Your task to perform on an android device: stop showing notifications on the lock screen Image 0: 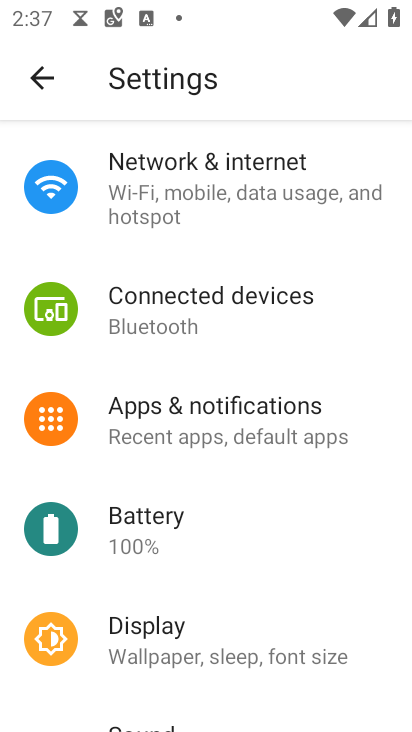
Step 0: press home button
Your task to perform on an android device: stop showing notifications on the lock screen Image 1: 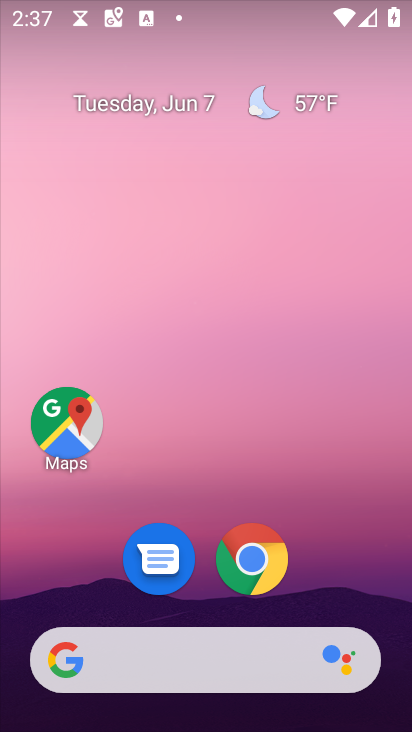
Step 1: drag from (29, 504) to (209, 153)
Your task to perform on an android device: stop showing notifications on the lock screen Image 2: 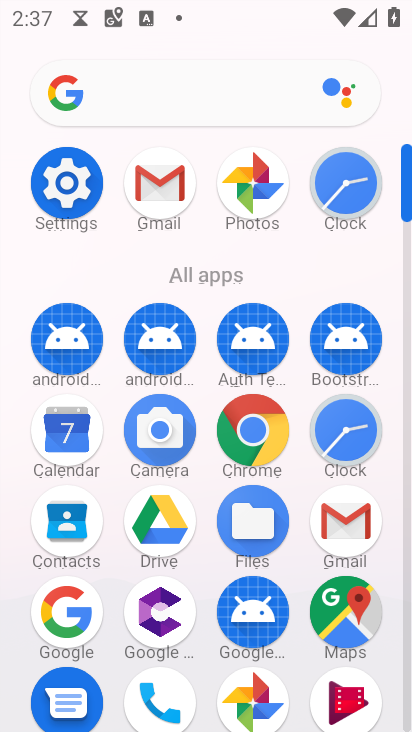
Step 2: click (63, 182)
Your task to perform on an android device: stop showing notifications on the lock screen Image 3: 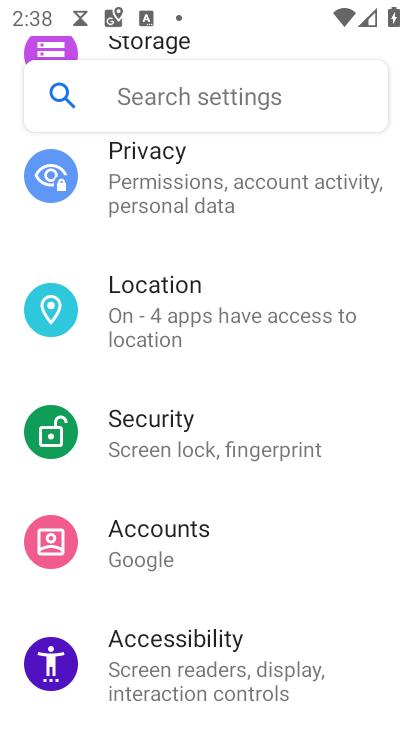
Step 3: drag from (213, 239) to (164, 621)
Your task to perform on an android device: stop showing notifications on the lock screen Image 4: 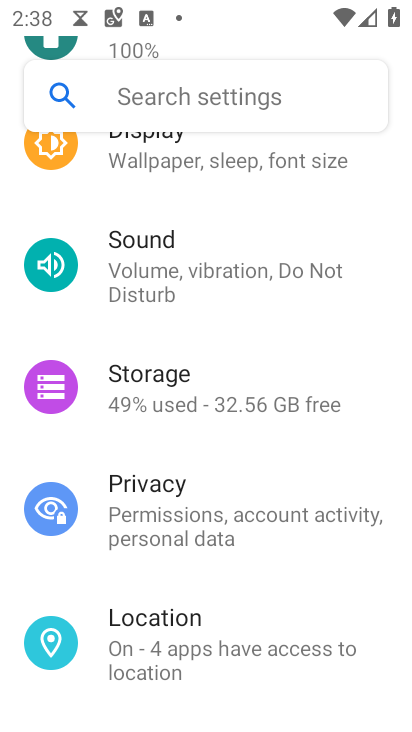
Step 4: drag from (230, 199) to (123, 603)
Your task to perform on an android device: stop showing notifications on the lock screen Image 5: 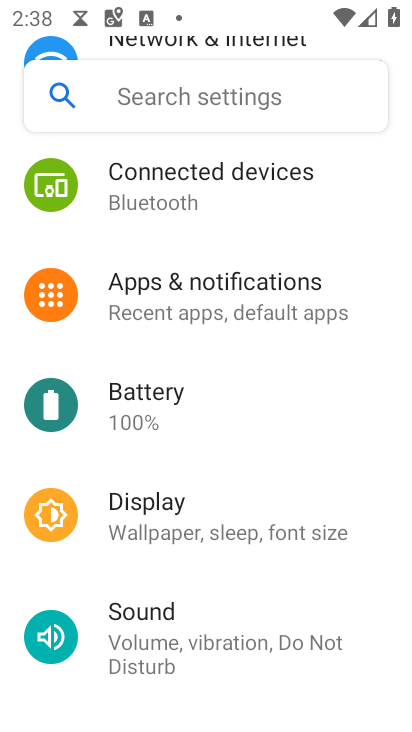
Step 5: drag from (153, 182) to (186, 587)
Your task to perform on an android device: stop showing notifications on the lock screen Image 6: 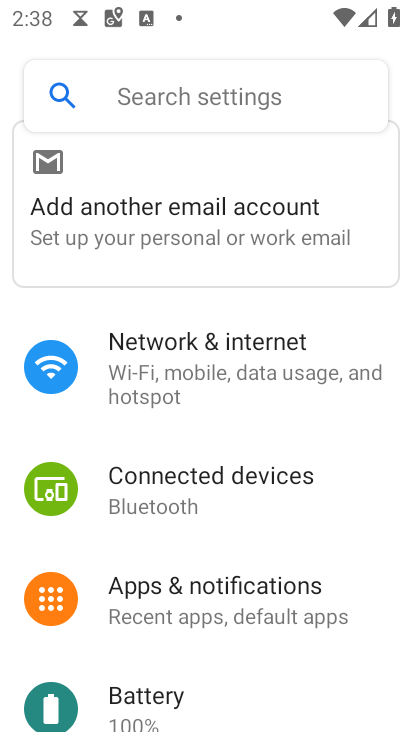
Step 6: click (143, 594)
Your task to perform on an android device: stop showing notifications on the lock screen Image 7: 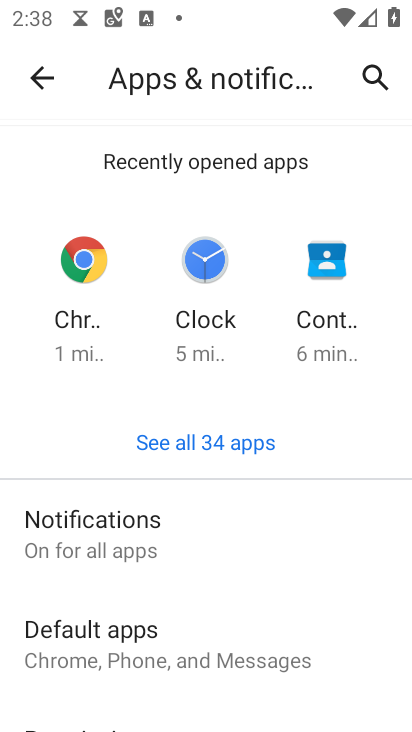
Step 7: click (31, 560)
Your task to perform on an android device: stop showing notifications on the lock screen Image 8: 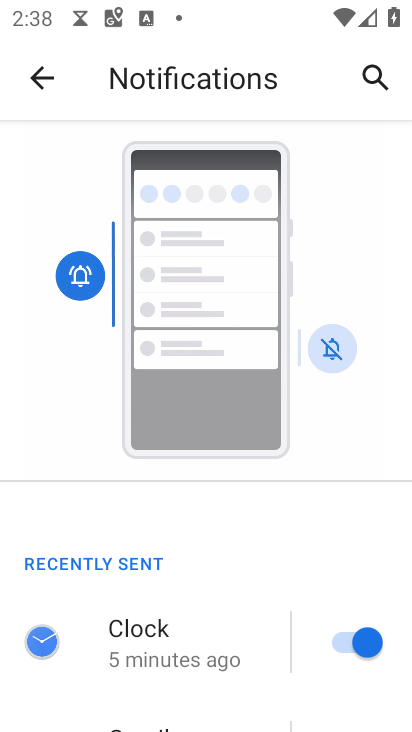
Step 8: click (61, 197)
Your task to perform on an android device: stop showing notifications on the lock screen Image 9: 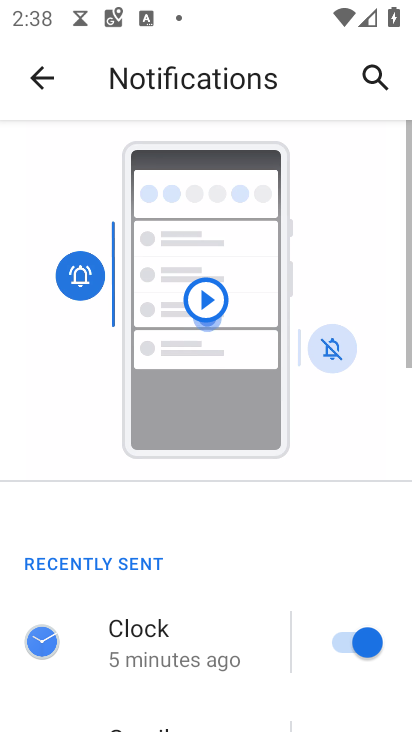
Step 9: drag from (9, 571) to (167, 176)
Your task to perform on an android device: stop showing notifications on the lock screen Image 10: 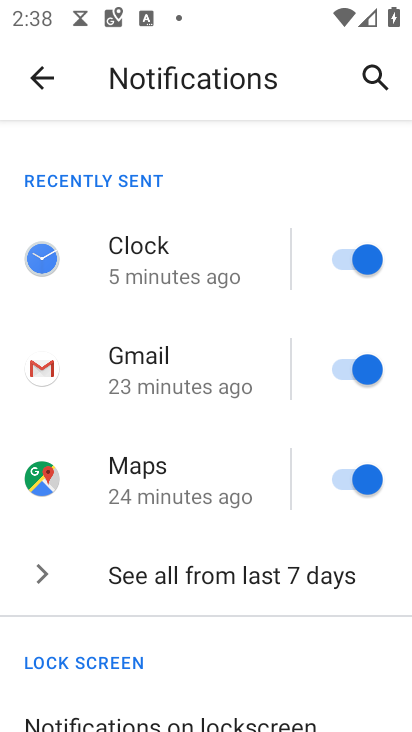
Step 10: drag from (11, 400) to (115, 170)
Your task to perform on an android device: stop showing notifications on the lock screen Image 11: 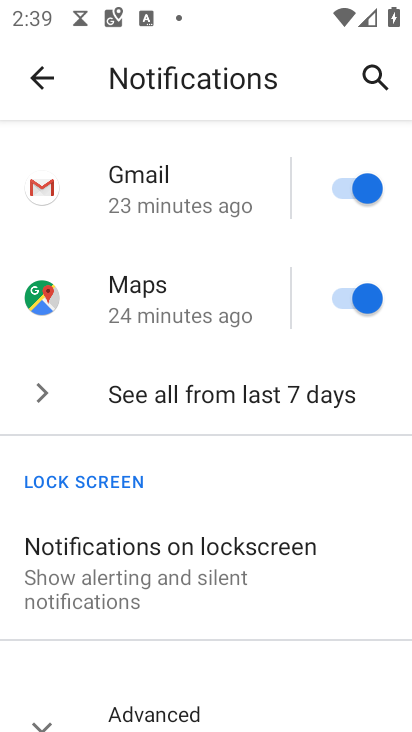
Step 11: click (144, 557)
Your task to perform on an android device: stop showing notifications on the lock screen Image 12: 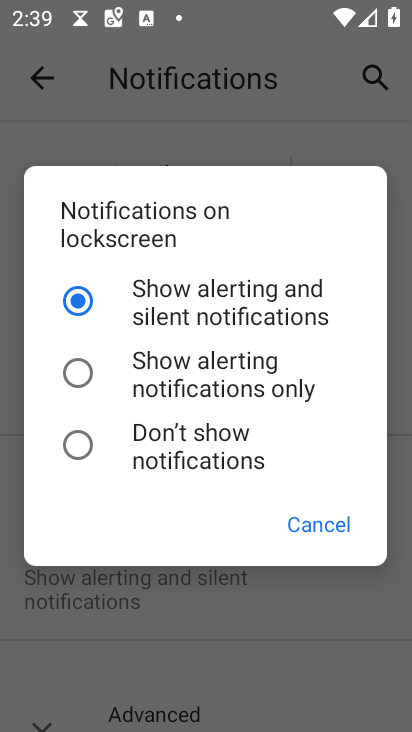
Step 12: click (68, 449)
Your task to perform on an android device: stop showing notifications on the lock screen Image 13: 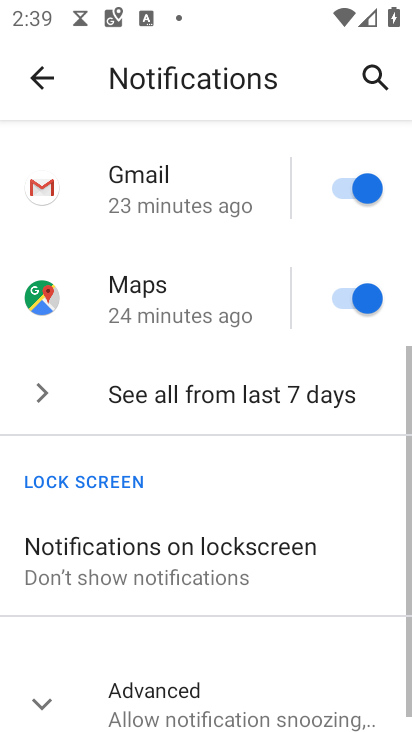
Step 13: task complete